Your task to perform on an android device: remove spam from my inbox in the gmail app Image 0: 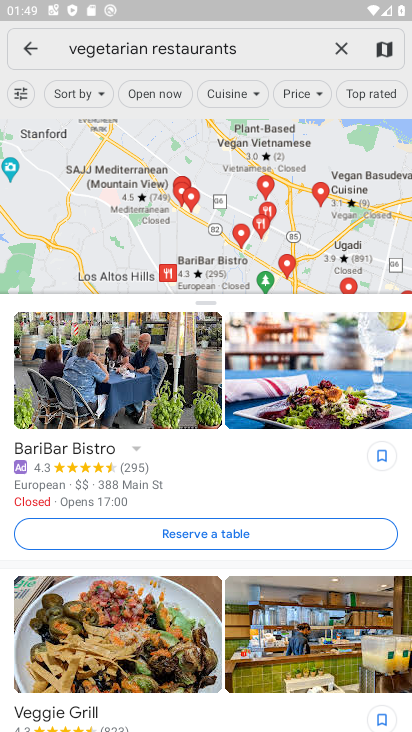
Step 0: press home button
Your task to perform on an android device: remove spam from my inbox in the gmail app Image 1: 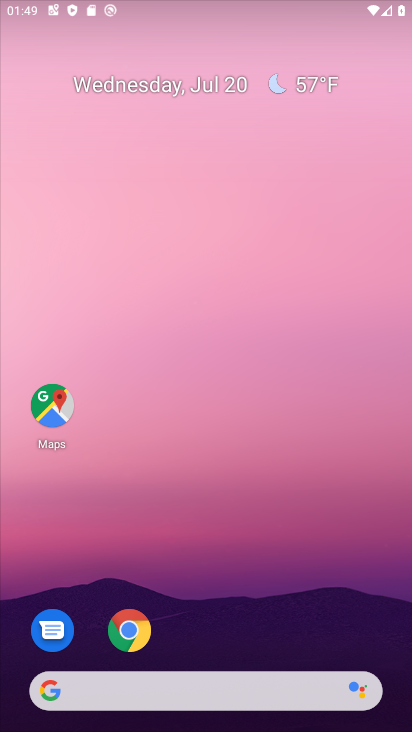
Step 1: drag from (340, 584) to (399, 30)
Your task to perform on an android device: remove spam from my inbox in the gmail app Image 2: 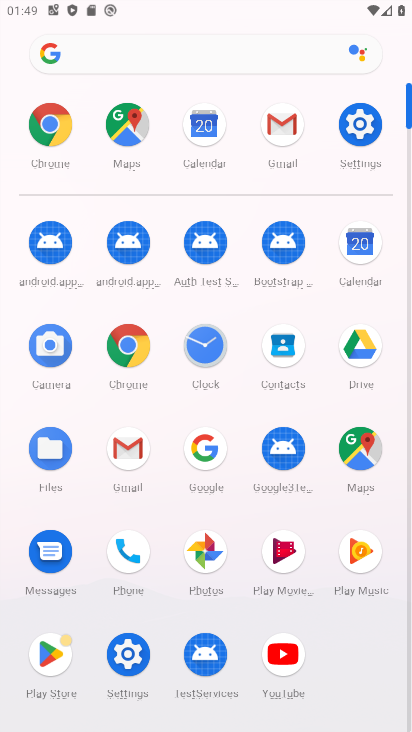
Step 2: click (289, 129)
Your task to perform on an android device: remove spam from my inbox in the gmail app Image 3: 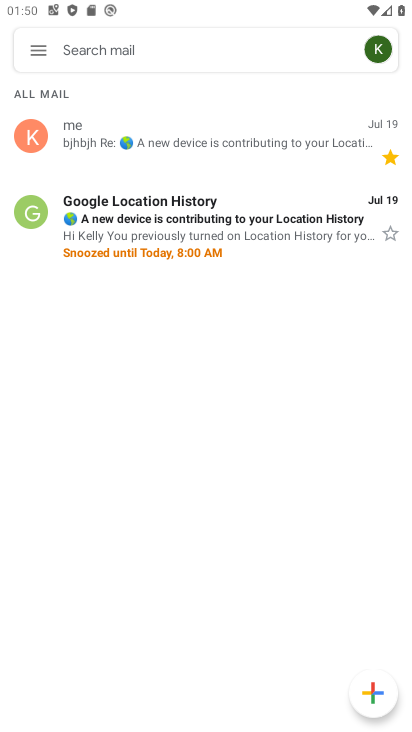
Step 3: click (43, 54)
Your task to perform on an android device: remove spam from my inbox in the gmail app Image 4: 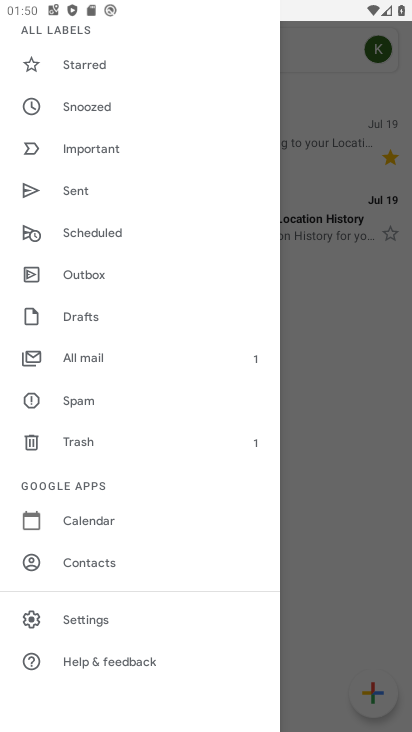
Step 4: click (81, 400)
Your task to perform on an android device: remove spam from my inbox in the gmail app Image 5: 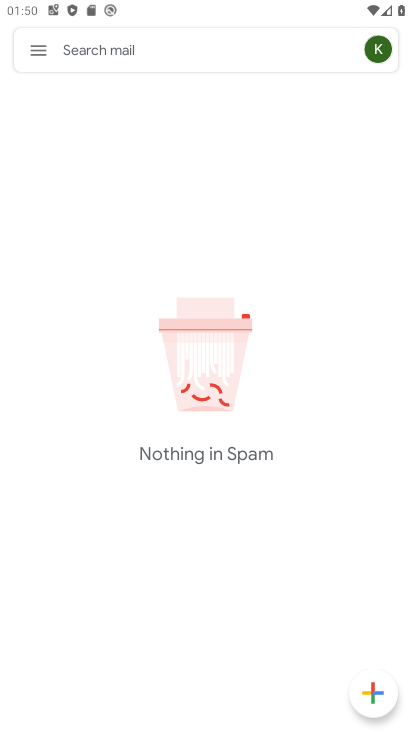
Step 5: click (35, 41)
Your task to perform on an android device: remove spam from my inbox in the gmail app Image 6: 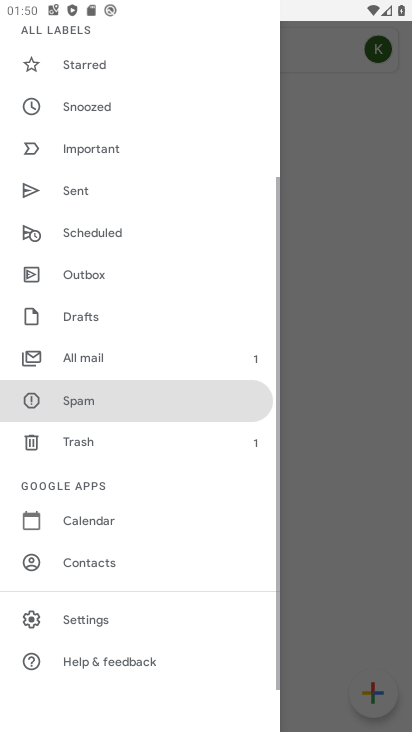
Step 6: drag from (161, 99) to (110, 709)
Your task to perform on an android device: remove spam from my inbox in the gmail app Image 7: 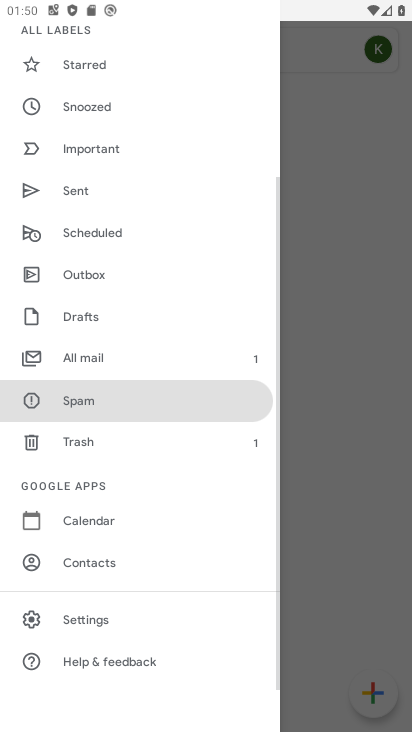
Step 7: drag from (60, 125) to (82, 646)
Your task to perform on an android device: remove spam from my inbox in the gmail app Image 8: 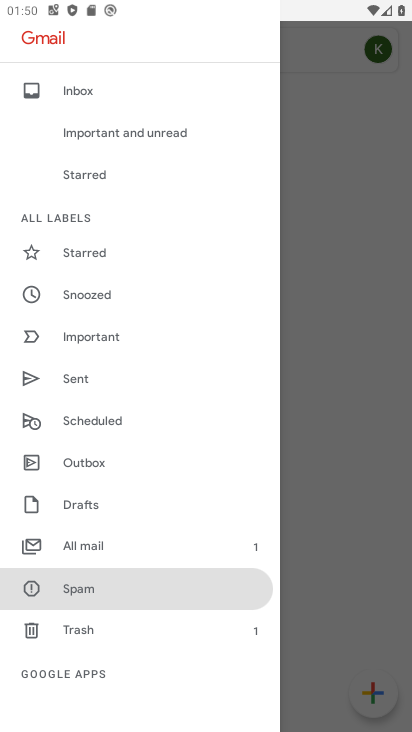
Step 8: click (83, 103)
Your task to perform on an android device: remove spam from my inbox in the gmail app Image 9: 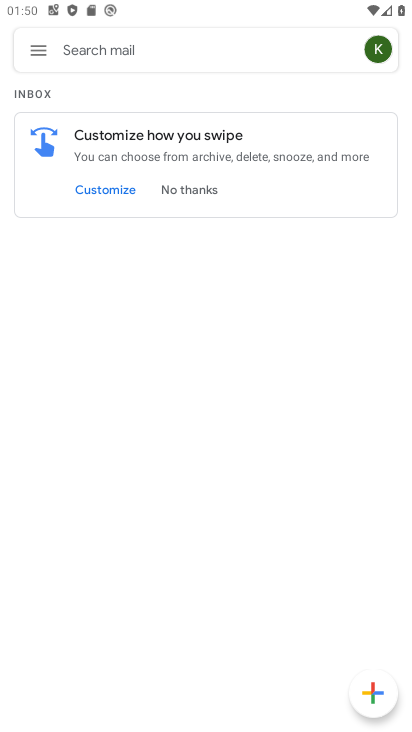
Step 9: task complete